Your task to perform on an android device: Open Google Chrome and open the bookmarks view Image 0: 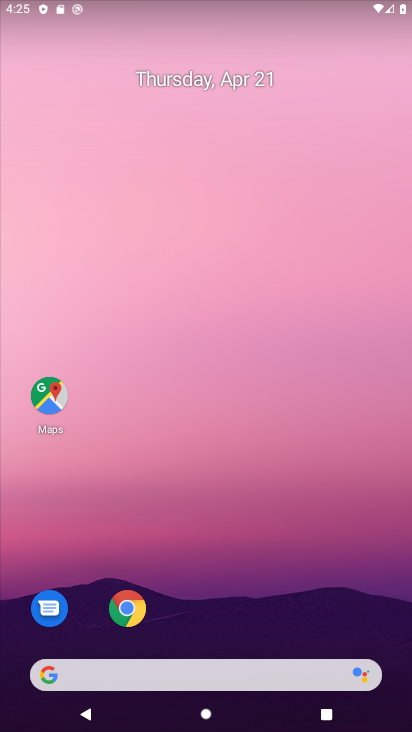
Step 0: click (131, 619)
Your task to perform on an android device: Open Google Chrome and open the bookmarks view Image 1: 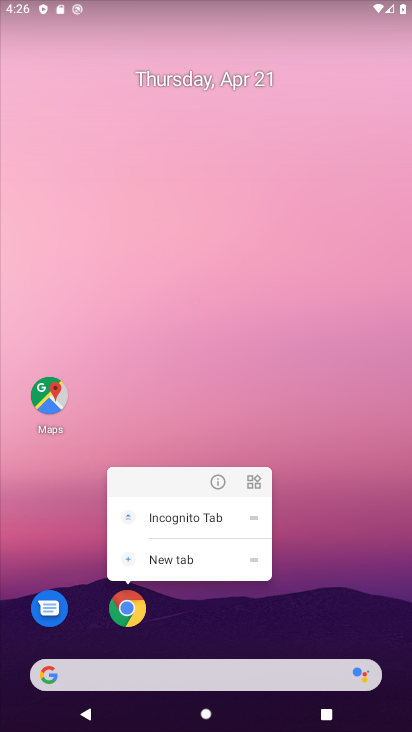
Step 1: click (131, 621)
Your task to perform on an android device: Open Google Chrome and open the bookmarks view Image 2: 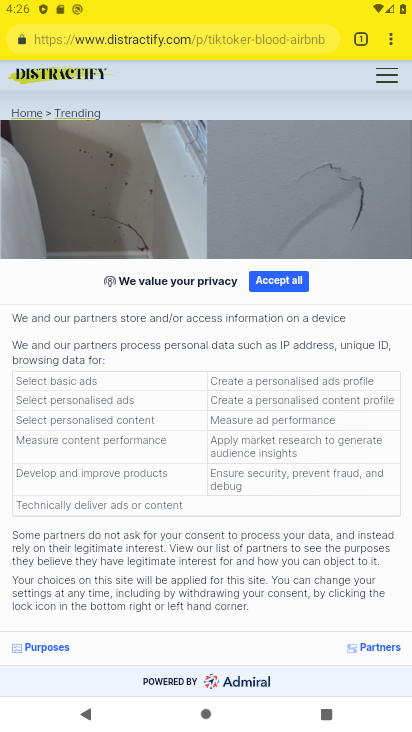
Step 2: click (389, 39)
Your task to perform on an android device: Open Google Chrome and open the bookmarks view Image 3: 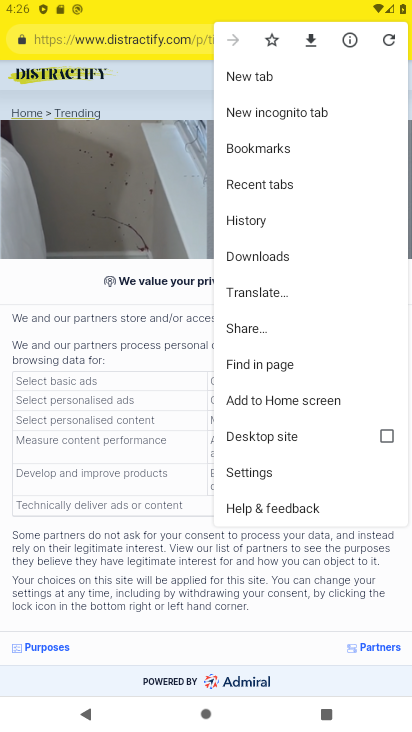
Step 3: click (249, 146)
Your task to perform on an android device: Open Google Chrome and open the bookmarks view Image 4: 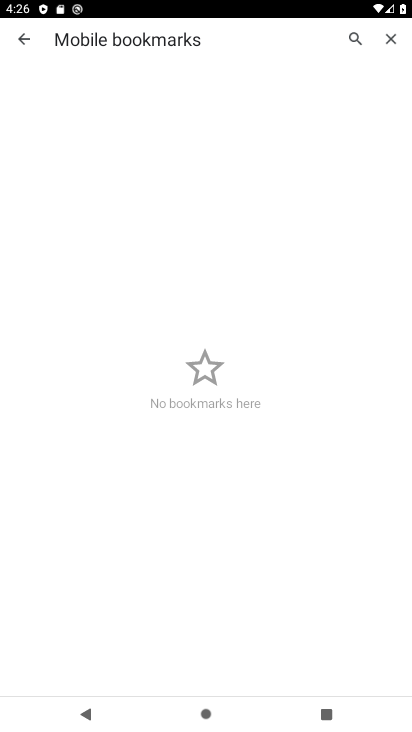
Step 4: task complete